Your task to perform on an android device: Open network settings Image 0: 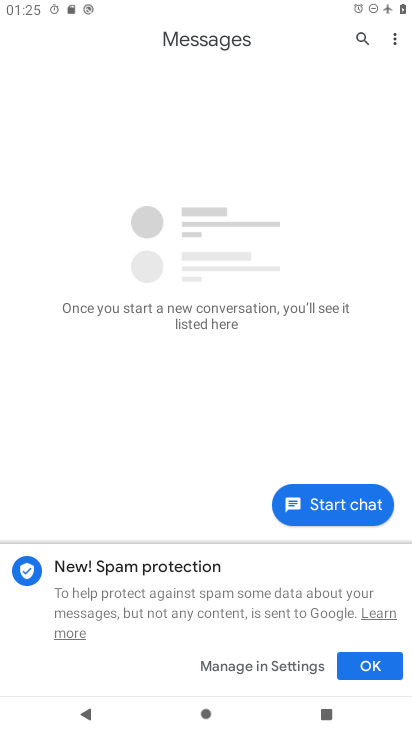
Step 0: press home button
Your task to perform on an android device: Open network settings Image 1: 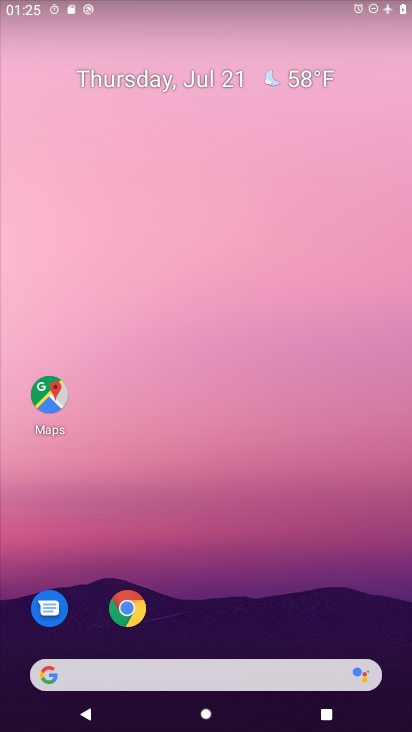
Step 1: drag from (254, 624) to (279, 8)
Your task to perform on an android device: Open network settings Image 2: 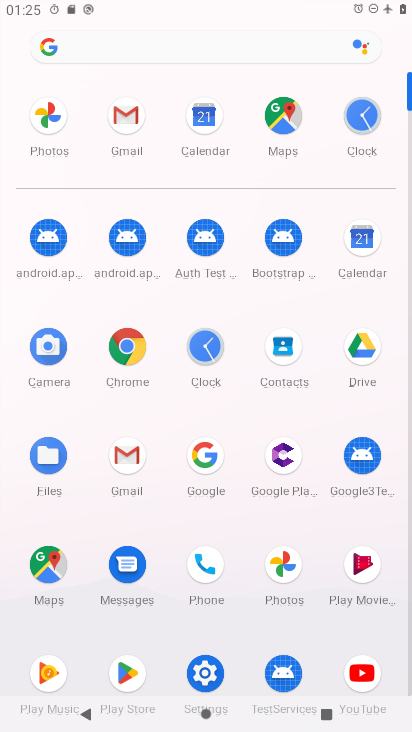
Step 2: click (208, 667)
Your task to perform on an android device: Open network settings Image 3: 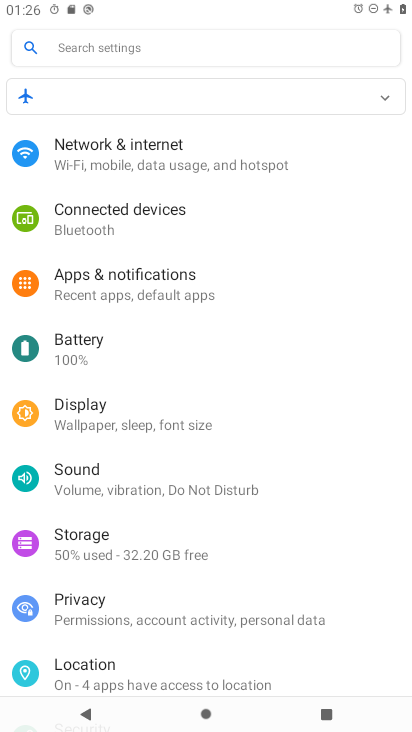
Step 3: click (135, 160)
Your task to perform on an android device: Open network settings Image 4: 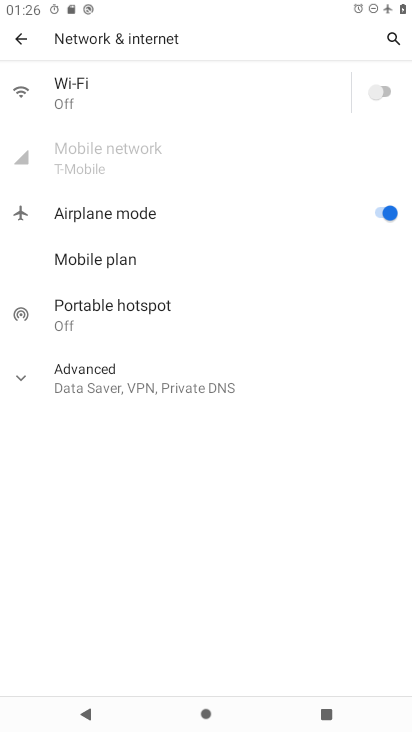
Step 4: task complete